Your task to perform on an android device: Open the calendar and show me this week's events Image 0: 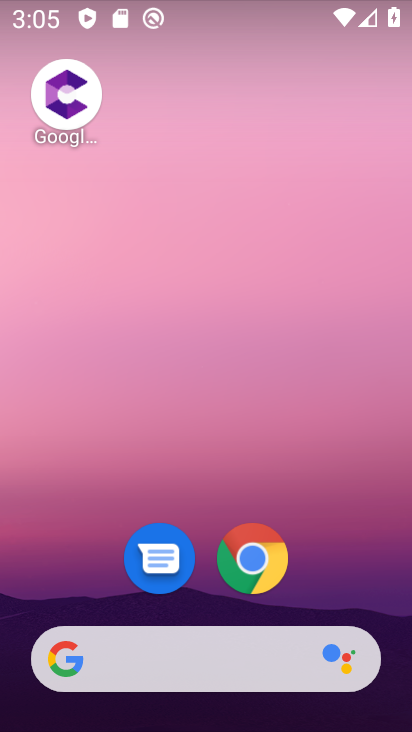
Step 0: drag from (327, 576) to (301, 90)
Your task to perform on an android device: Open the calendar and show me this week's events Image 1: 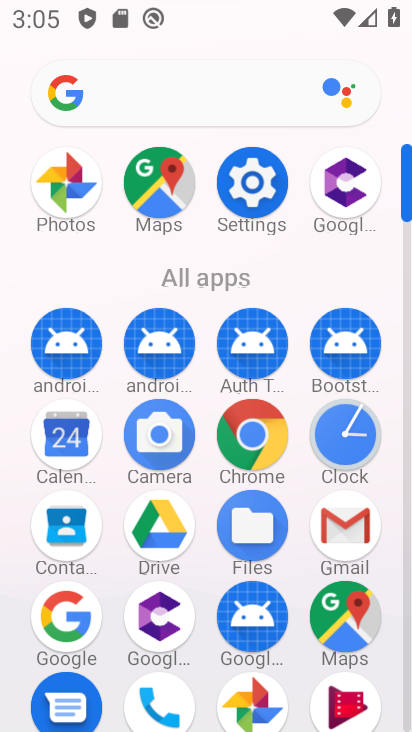
Step 1: click (74, 434)
Your task to perform on an android device: Open the calendar and show me this week's events Image 2: 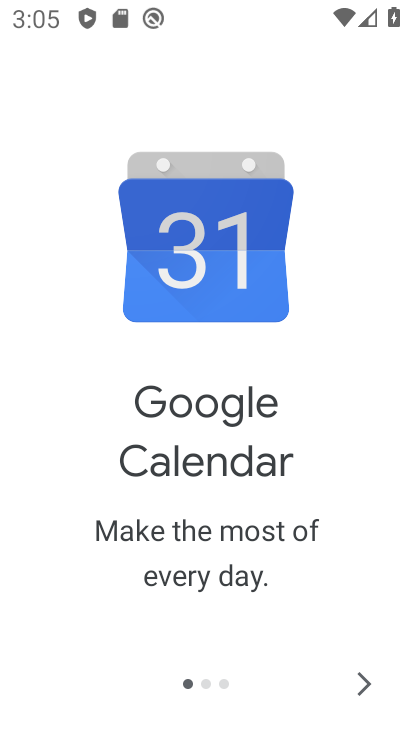
Step 2: click (365, 688)
Your task to perform on an android device: Open the calendar and show me this week's events Image 3: 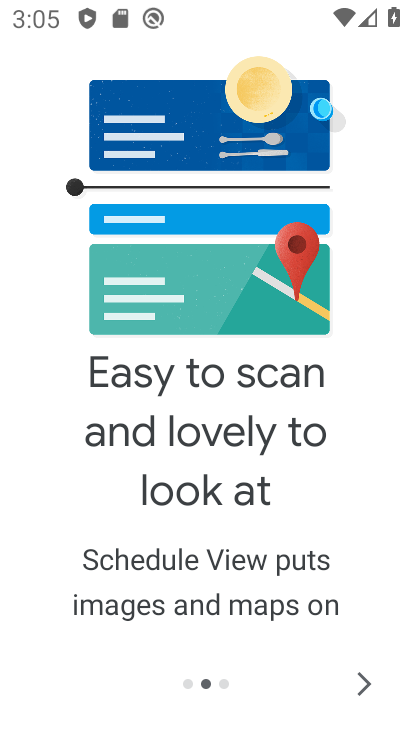
Step 3: click (365, 679)
Your task to perform on an android device: Open the calendar and show me this week's events Image 4: 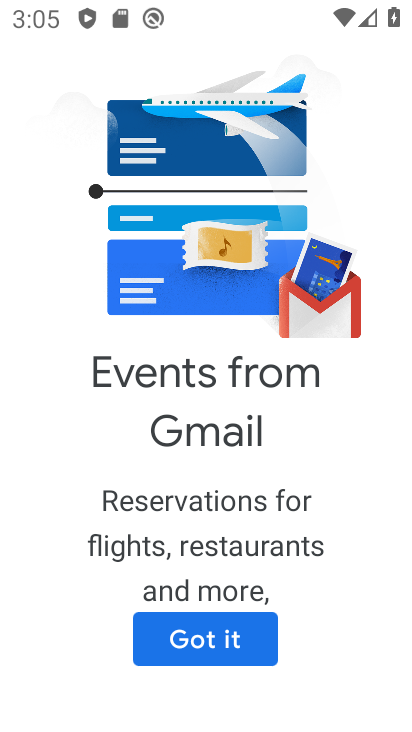
Step 4: click (230, 642)
Your task to perform on an android device: Open the calendar and show me this week's events Image 5: 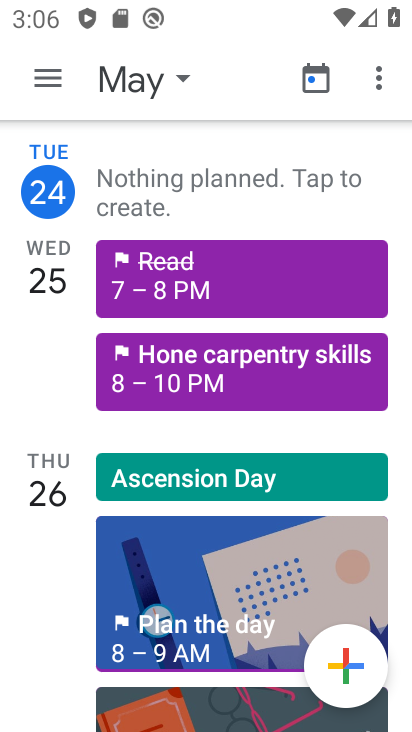
Step 5: task complete